Your task to perform on an android device: What is the news today? Image 0: 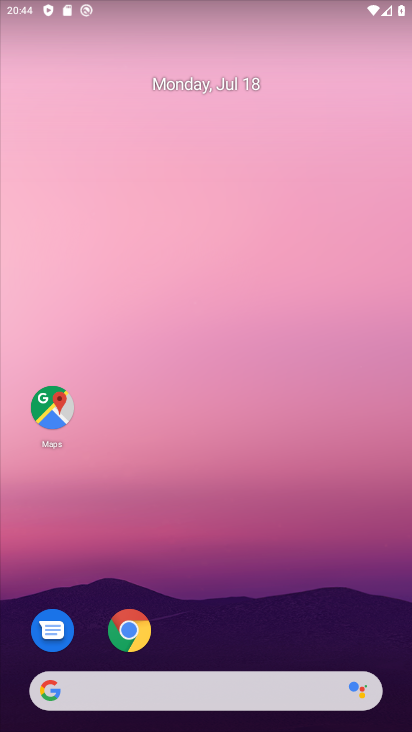
Step 0: drag from (224, 606) to (232, 316)
Your task to perform on an android device: What is the news today? Image 1: 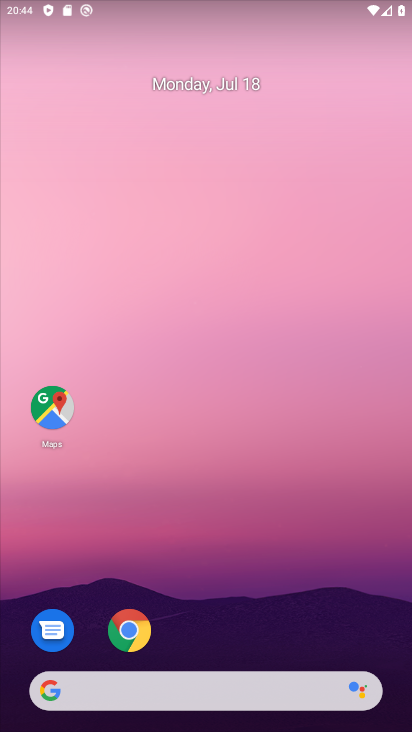
Step 1: drag from (235, 679) to (272, 362)
Your task to perform on an android device: What is the news today? Image 2: 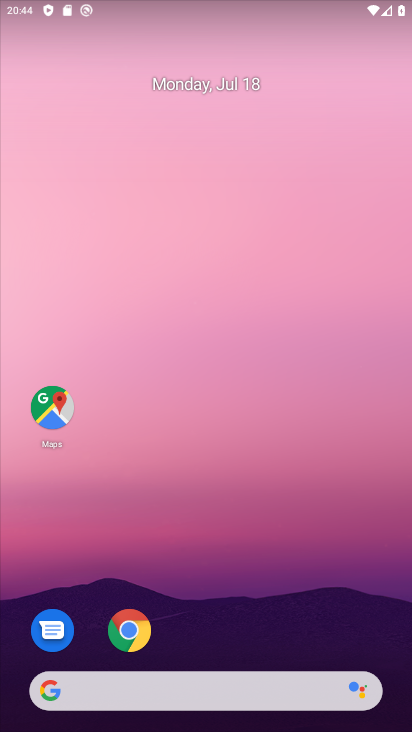
Step 2: drag from (257, 651) to (294, 254)
Your task to perform on an android device: What is the news today? Image 3: 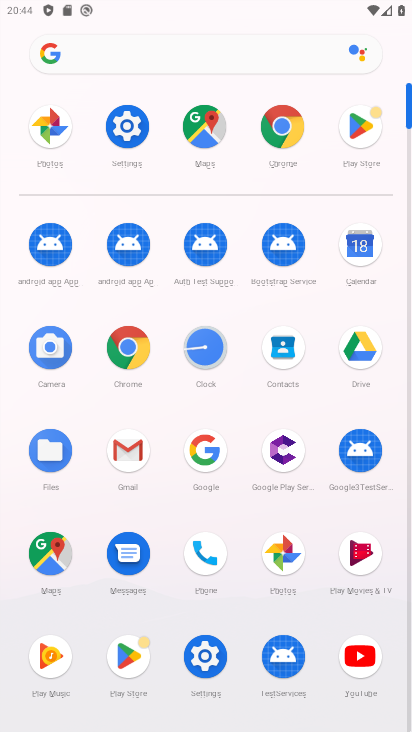
Step 3: click (283, 123)
Your task to perform on an android device: What is the news today? Image 4: 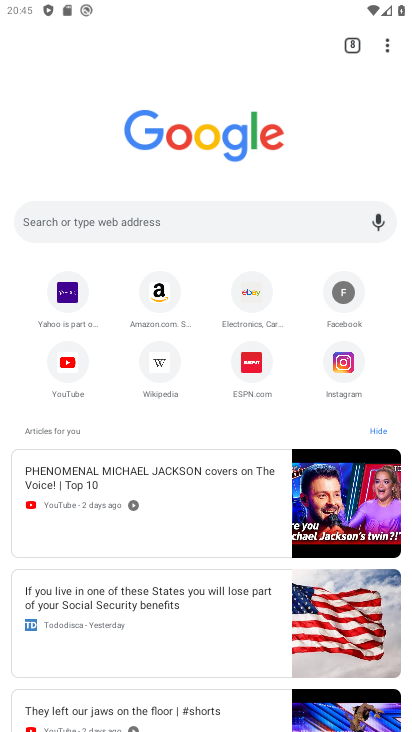
Step 4: click (178, 217)
Your task to perform on an android device: What is the news today? Image 5: 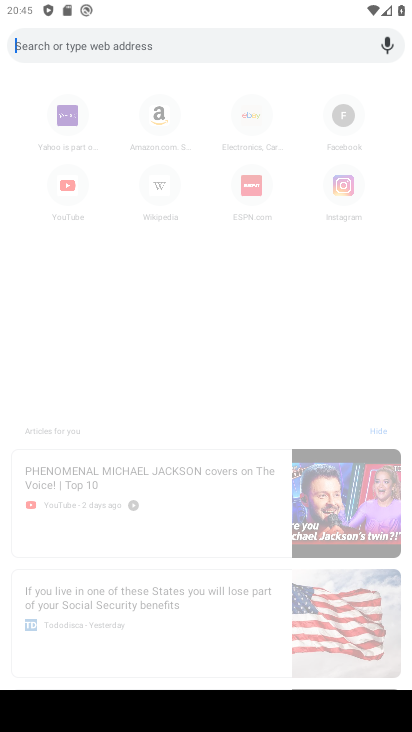
Step 5: click (140, 37)
Your task to perform on an android device: What is the news today? Image 6: 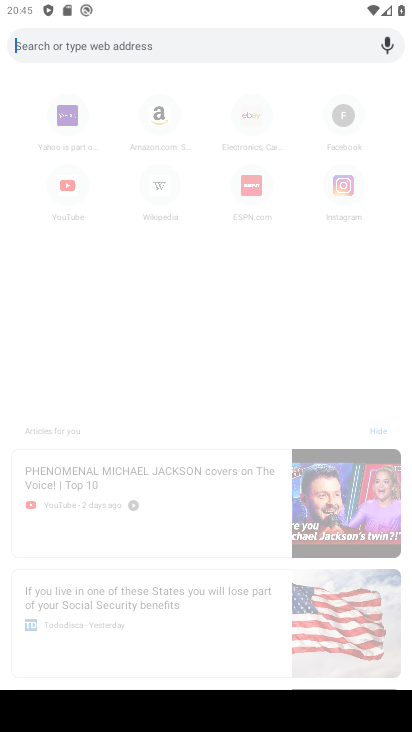
Step 6: type "What is the news today "
Your task to perform on an android device: What is the news today? Image 7: 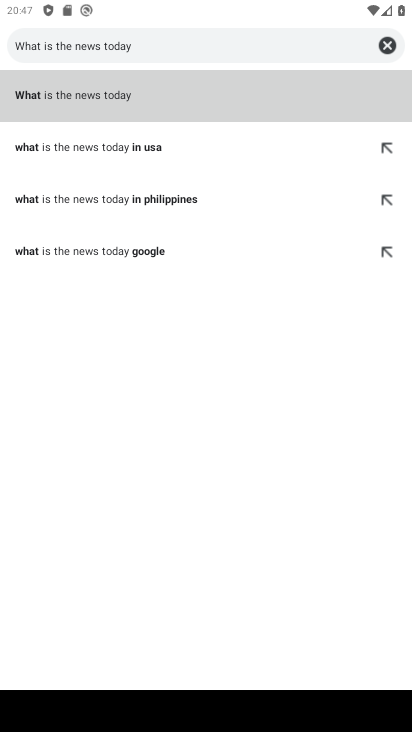
Step 7: click (183, 88)
Your task to perform on an android device: What is the news today? Image 8: 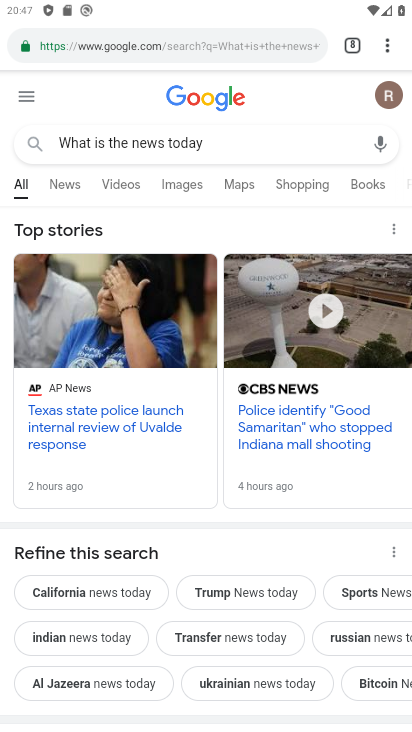
Step 8: task complete